Your task to perform on an android device: Search for "logitech g903" on amazon, select the first entry, and add it to the cart. Image 0: 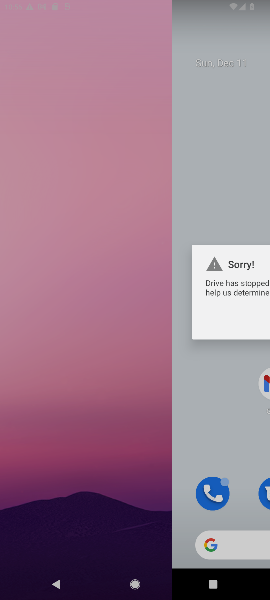
Step 0: press home button
Your task to perform on an android device: Search for "logitech g903" on amazon, select the first entry, and add it to the cart. Image 1: 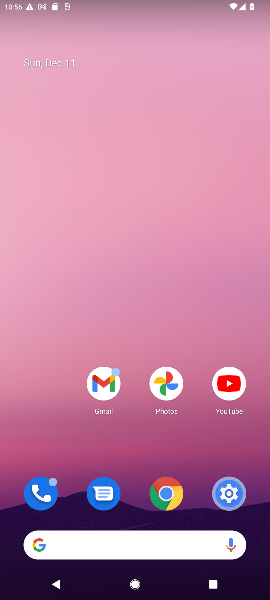
Step 1: click (173, 546)
Your task to perform on an android device: Search for "logitech g903" on amazon, select the first entry, and add it to the cart. Image 2: 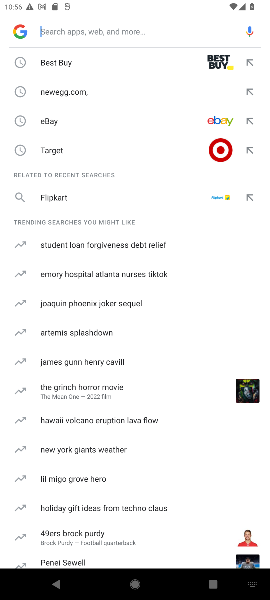
Step 2: type "amazon"
Your task to perform on an android device: Search for "logitech g903" on amazon, select the first entry, and add it to the cart. Image 3: 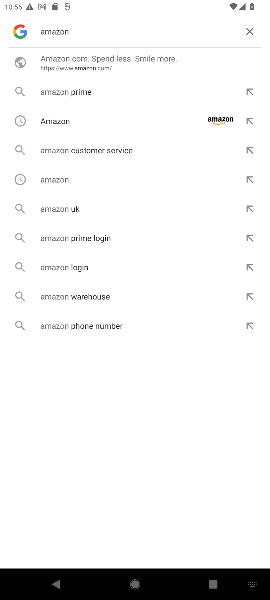
Step 3: click (133, 76)
Your task to perform on an android device: Search for "logitech g903" on amazon, select the first entry, and add it to the cart. Image 4: 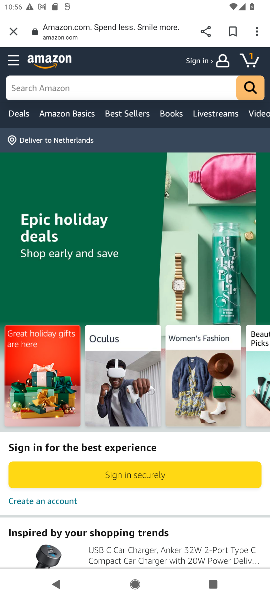
Step 4: click (117, 82)
Your task to perform on an android device: Search for "logitech g903" on amazon, select the first entry, and add it to the cart. Image 5: 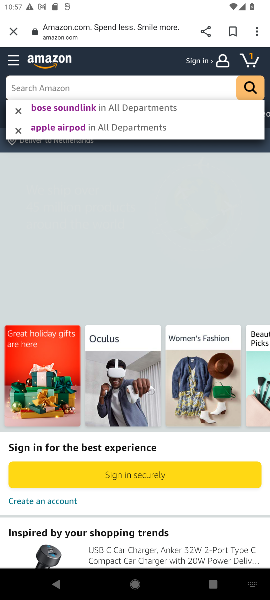
Step 5: type "logitech g903"
Your task to perform on an android device: Search for "logitech g903" on amazon, select the first entry, and add it to the cart. Image 6: 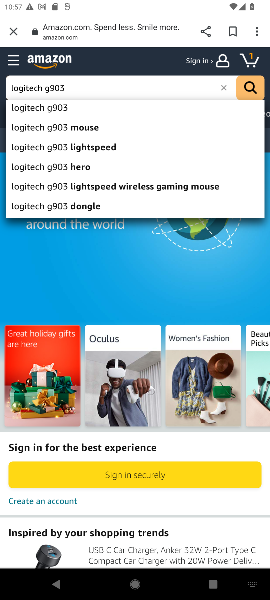
Step 6: click (115, 110)
Your task to perform on an android device: Search for "logitech g903" on amazon, select the first entry, and add it to the cart. Image 7: 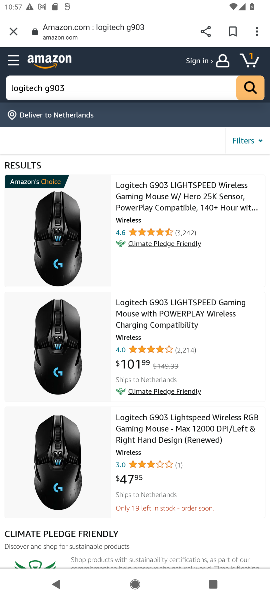
Step 7: click (190, 198)
Your task to perform on an android device: Search for "logitech g903" on amazon, select the first entry, and add it to the cart. Image 8: 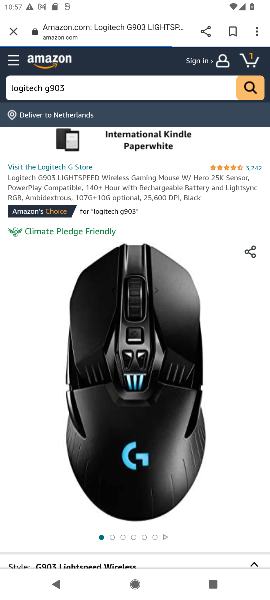
Step 8: drag from (145, 496) to (137, 167)
Your task to perform on an android device: Search for "logitech g903" on amazon, select the first entry, and add it to the cart. Image 9: 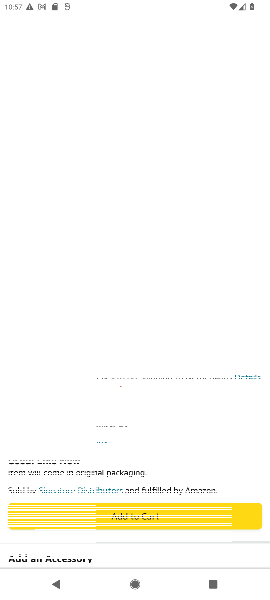
Step 9: click (161, 525)
Your task to perform on an android device: Search for "logitech g903" on amazon, select the first entry, and add it to the cart. Image 10: 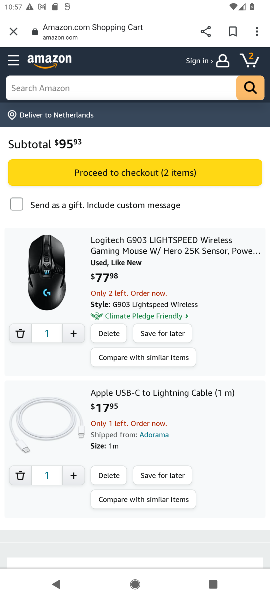
Step 10: task complete